Your task to perform on an android device: turn off notifications in google photos Image 0: 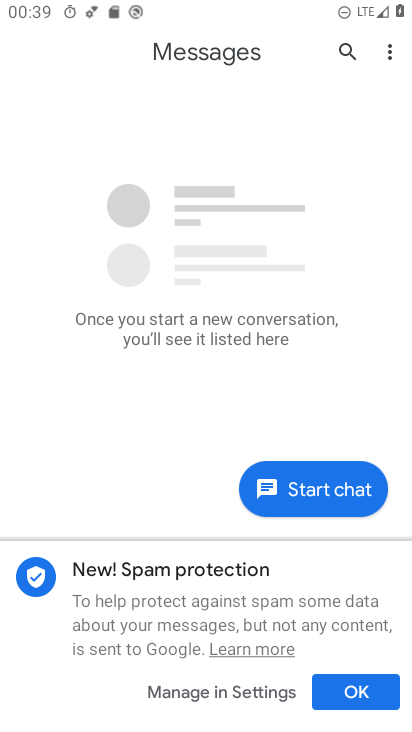
Step 0: press home button
Your task to perform on an android device: turn off notifications in google photos Image 1: 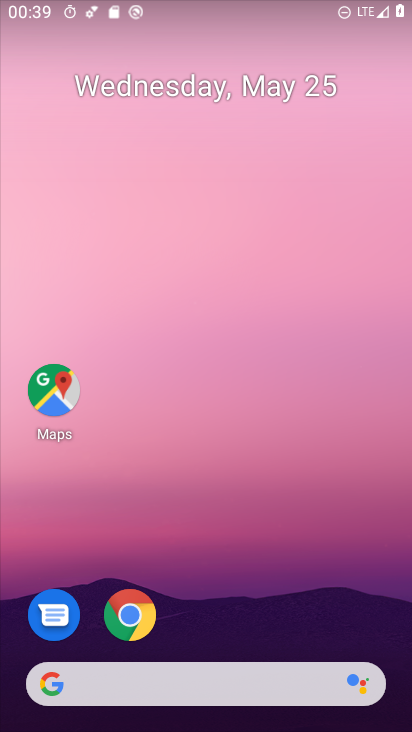
Step 1: drag from (221, 703) to (316, 1)
Your task to perform on an android device: turn off notifications in google photos Image 2: 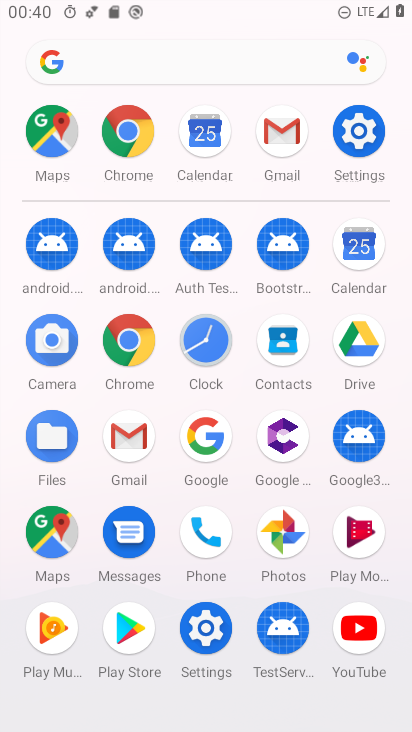
Step 2: click (273, 526)
Your task to perform on an android device: turn off notifications in google photos Image 3: 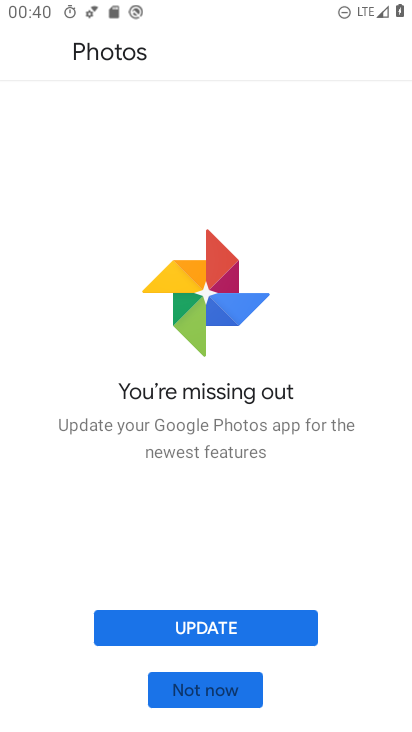
Step 3: click (217, 621)
Your task to perform on an android device: turn off notifications in google photos Image 4: 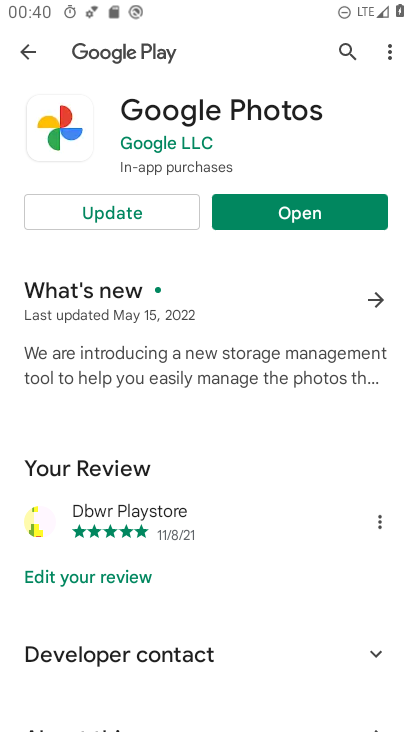
Step 4: click (101, 205)
Your task to perform on an android device: turn off notifications in google photos Image 5: 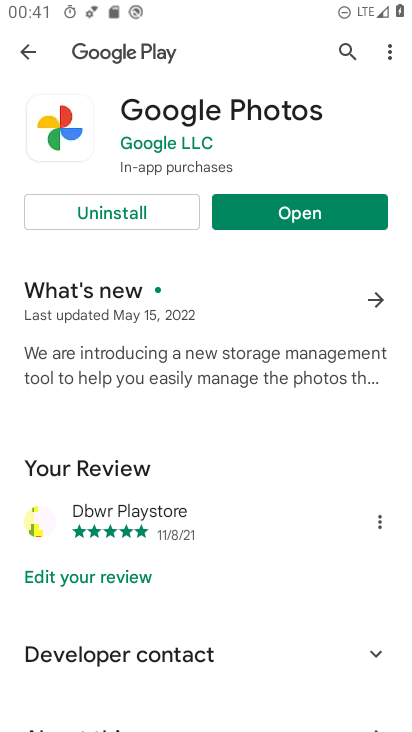
Step 5: click (247, 214)
Your task to perform on an android device: turn off notifications in google photos Image 6: 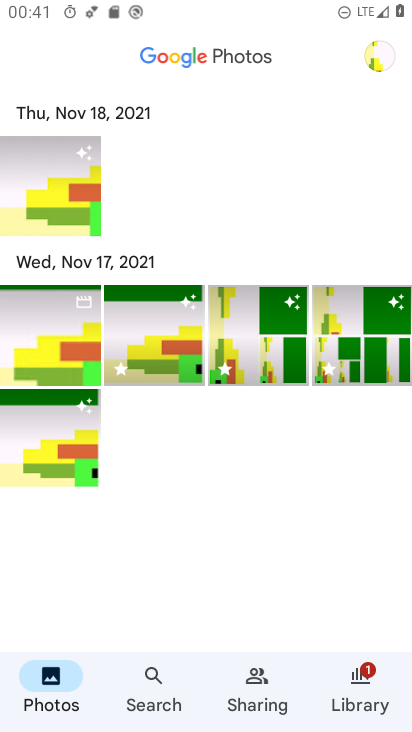
Step 6: click (380, 41)
Your task to perform on an android device: turn off notifications in google photos Image 7: 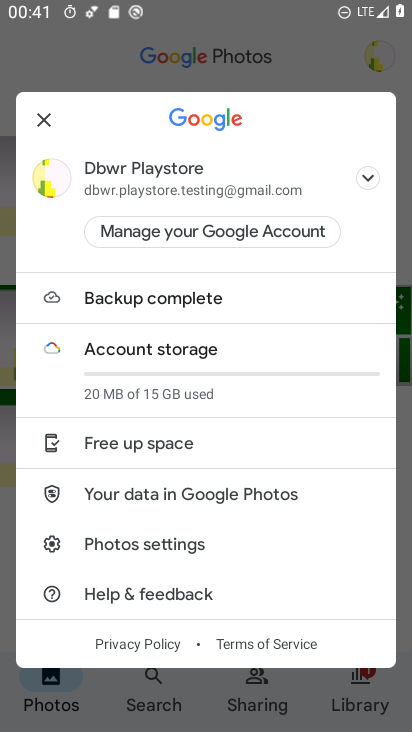
Step 7: click (168, 533)
Your task to perform on an android device: turn off notifications in google photos Image 8: 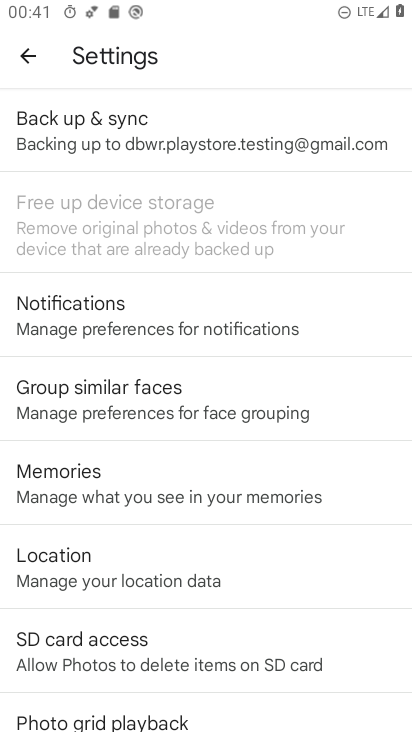
Step 8: click (140, 316)
Your task to perform on an android device: turn off notifications in google photos Image 9: 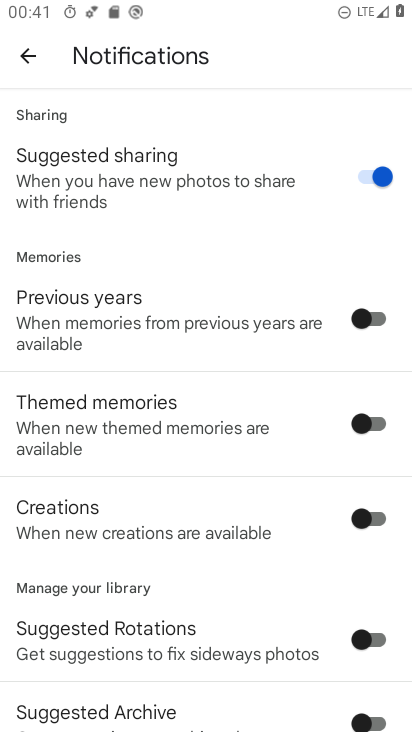
Step 9: drag from (207, 342) to (203, 153)
Your task to perform on an android device: turn off notifications in google photos Image 10: 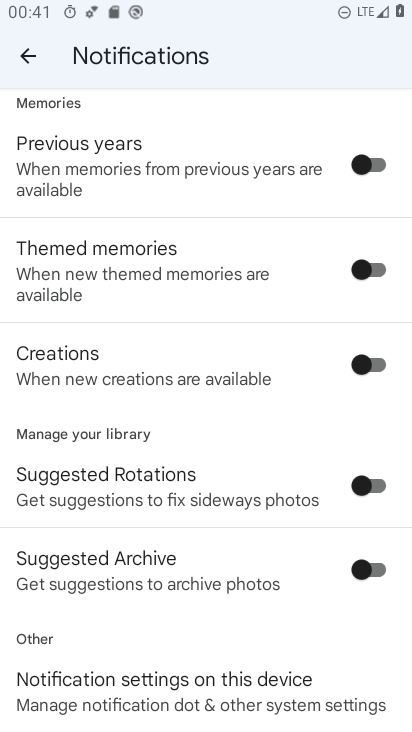
Step 10: click (127, 686)
Your task to perform on an android device: turn off notifications in google photos Image 11: 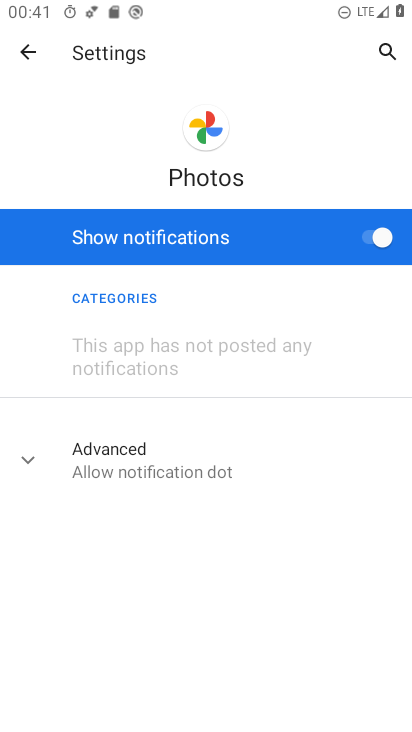
Step 11: click (375, 258)
Your task to perform on an android device: turn off notifications in google photos Image 12: 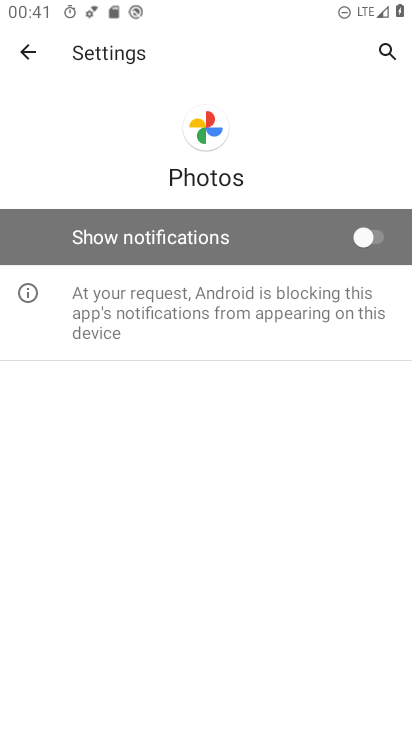
Step 12: task complete